Your task to perform on an android device: Open the map Image 0: 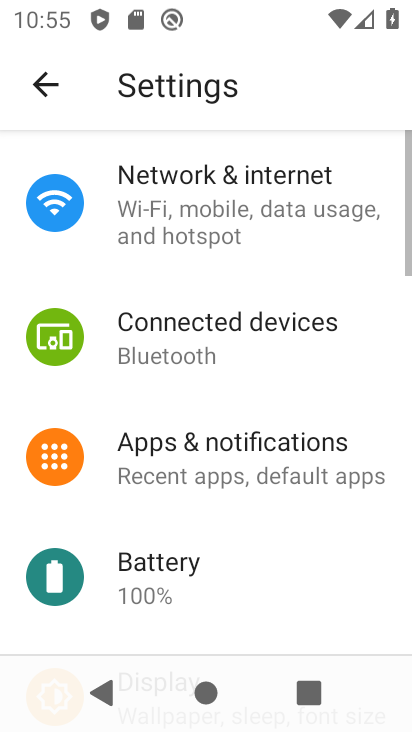
Step 0: press home button
Your task to perform on an android device: Open the map Image 1: 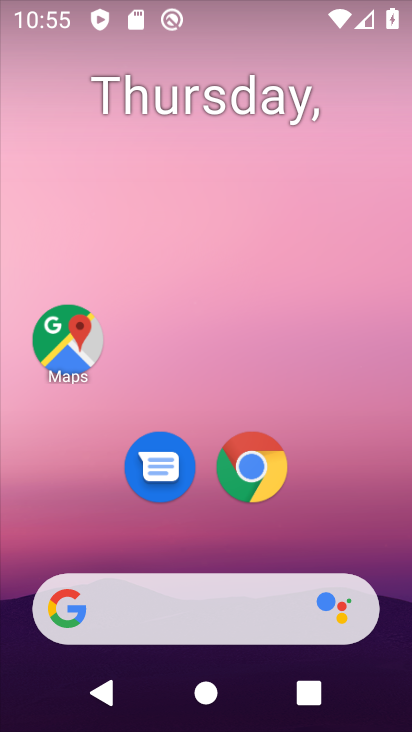
Step 1: drag from (218, 536) to (250, 230)
Your task to perform on an android device: Open the map Image 2: 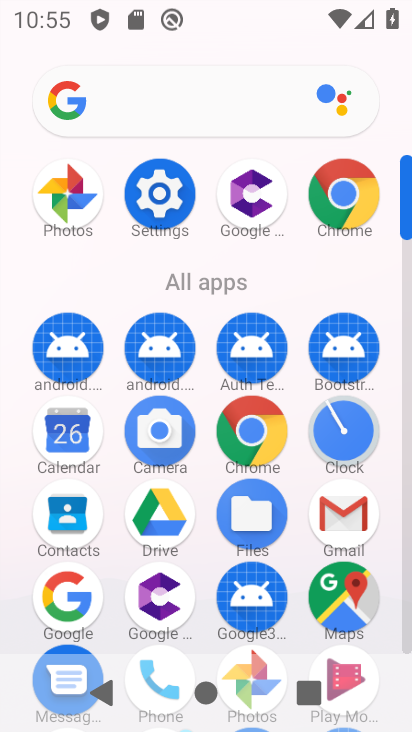
Step 2: click (340, 586)
Your task to perform on an android device: Open the map Image 3: 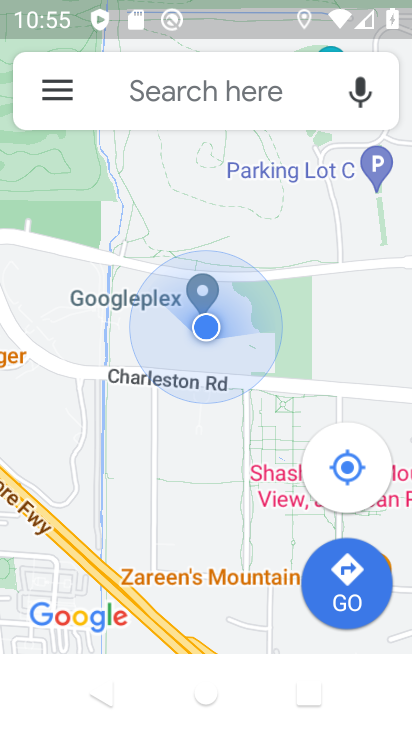
Step 3: task complete